Your task to perform on an android device: find which apps use the phone's location Image 0: 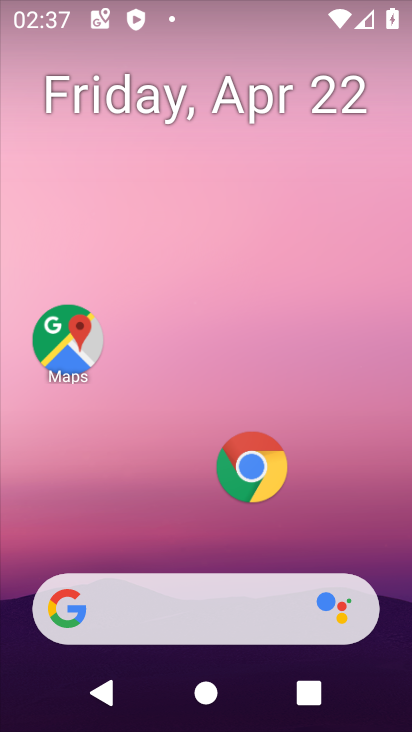
Step 0: drag from (228, 440) to (336, 170)
Your task to perform on an android device: find which apps use the phone's location Image 1: 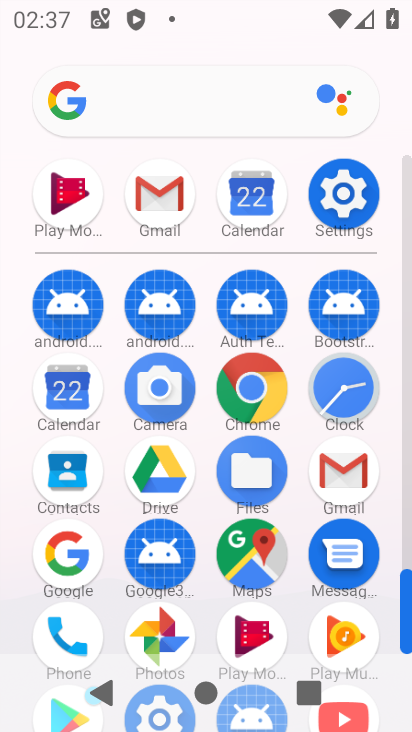
Step 1: click (256, 549)
Your task to perform on an android device: find which apps use the phone's location Image 2: 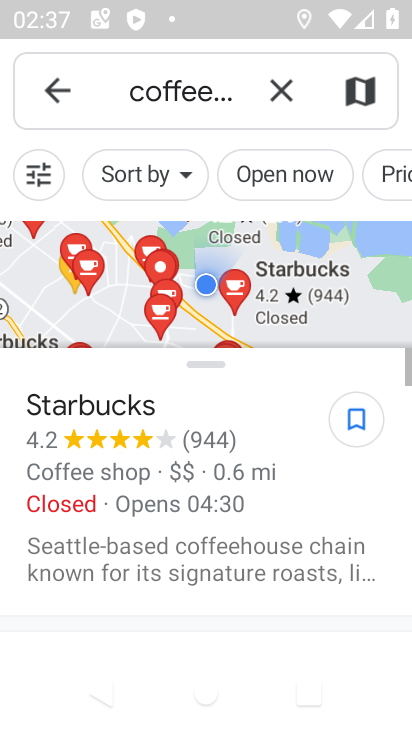
Step 2: task complete